Your task to perform on an android device: turn off data saver in the chrome app Image 0: 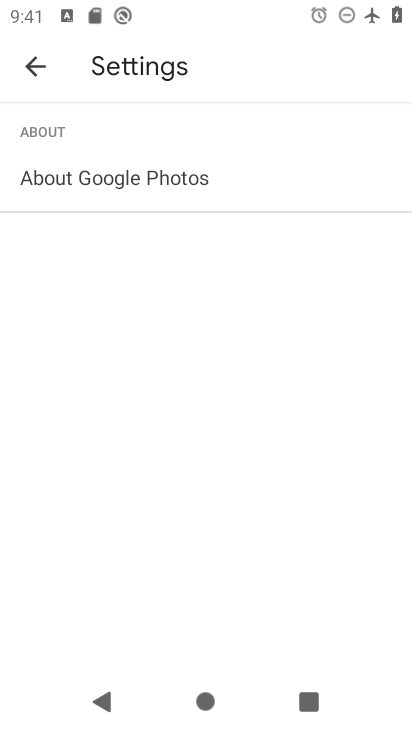
Step 0: press home button
Your task to perform on an android device: turn off data saver in the chrome app Image 1: 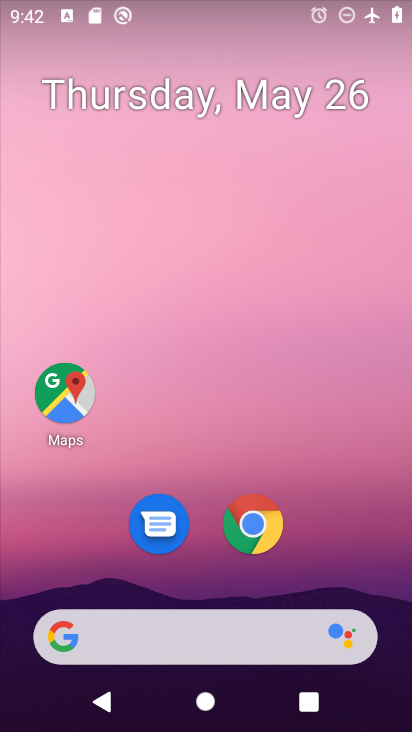
Step 1: click (259, 512)
Your task to perform on an android device: turn off data saver in the chrome app Image 2: 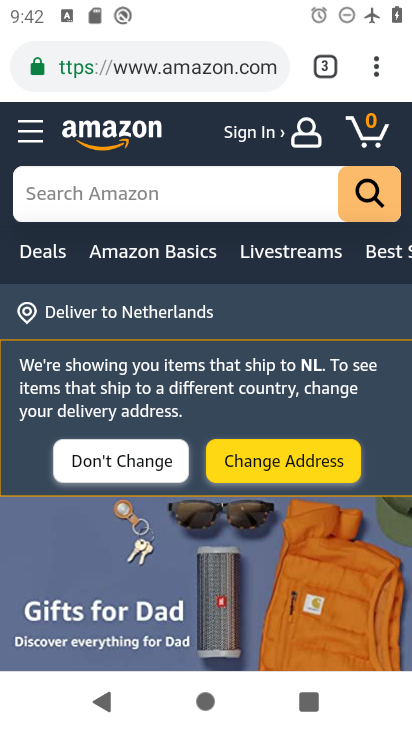
Step 2: click (375, 68)
Your task to perform on an android device: turn off data saver in the chrome app Image 3: 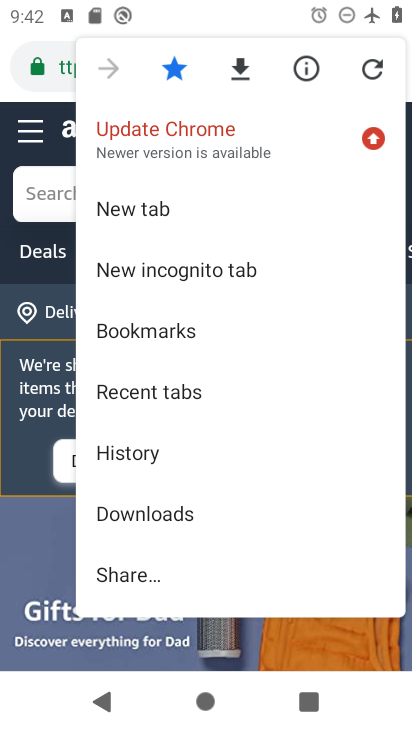
Step 3: drag from (216, 455) to (226, 158)
Your task to perform on an android device: turn off data saver in the chrome app Image 4: 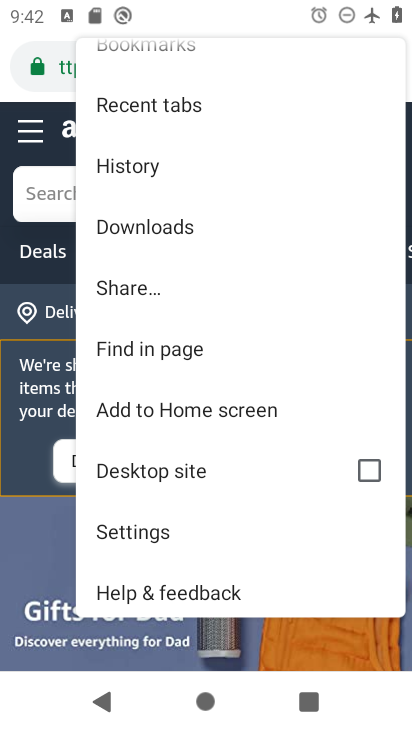
Step 4: click (151, 522)
Your task to perform on an android device: turn off data saver in the chrome app Image 5: 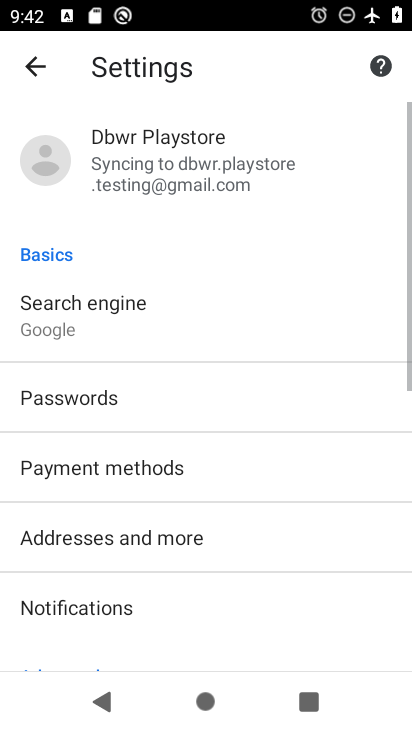
Step 5: drag from (227, 572) to (229, 109)
Your task to perform on an android device: turn off data saver in the chrome app Image 6: 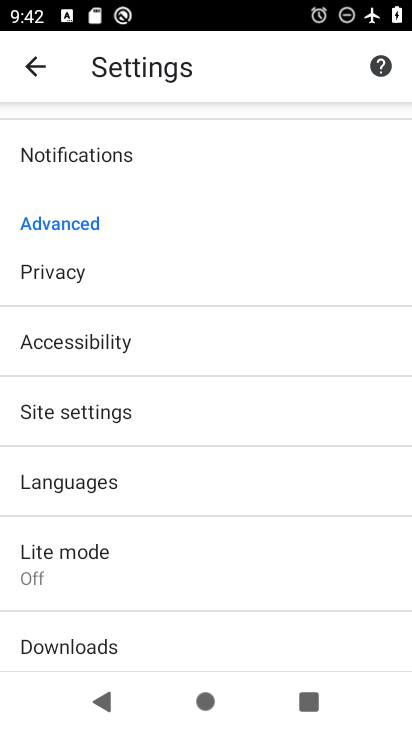
Step 6: click (169, 571)
Your task to perform on an android device: turn off data saver in the chrome app Image 7: 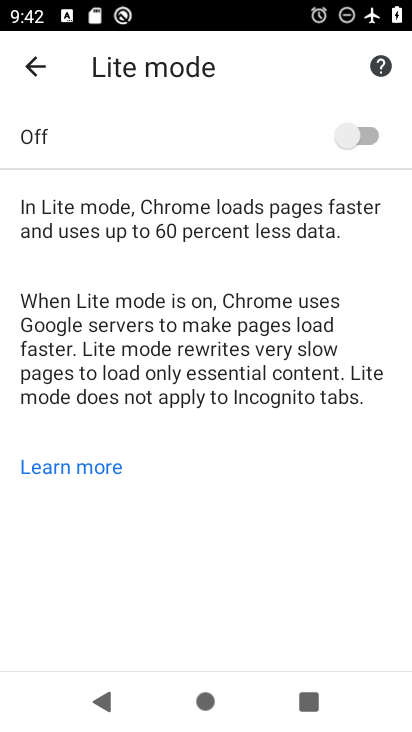
Step 7: task complete